Your task to perform on an android device: toggle location history Image 0: 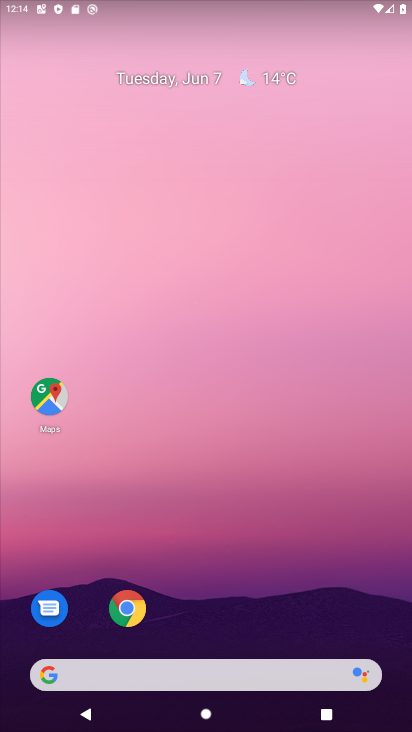
Step 0: drag from (186, 658) to (298, 257)
Your task to perform on an android device: toggle location history Image 1: 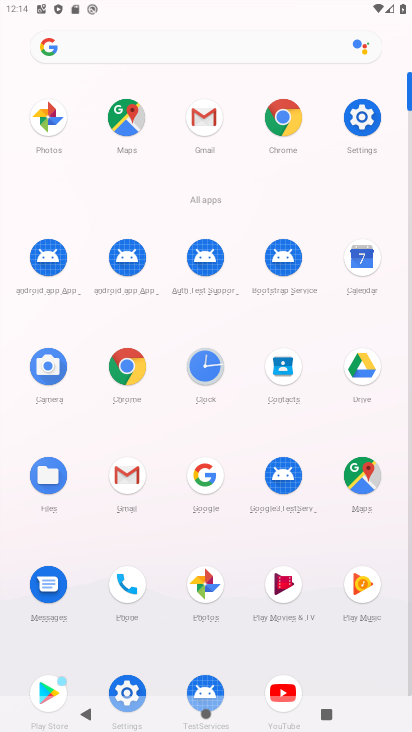
Step 1: click (133, 696)
Your task to perform on an android device: toggle location history Image 2: 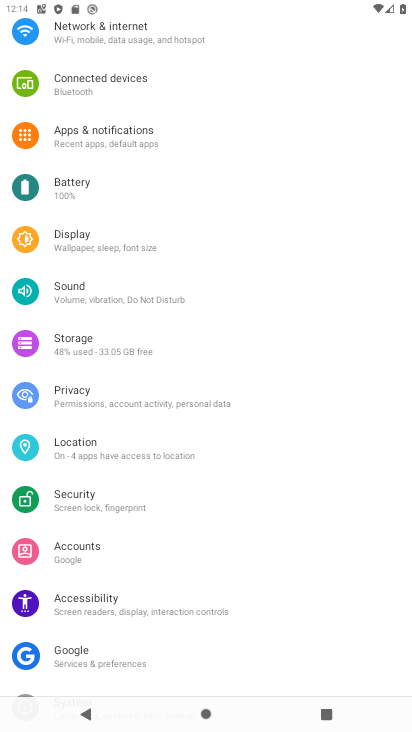
Step 2: click (120, 441)
Your task to perform on an android device: toggle location history Image 3: 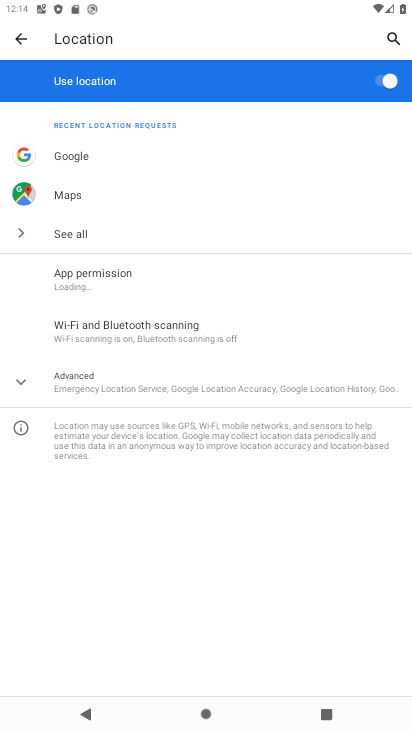
Step 3: click (156, 387)
Your task to perform on an android device: toggle location history Image 4: 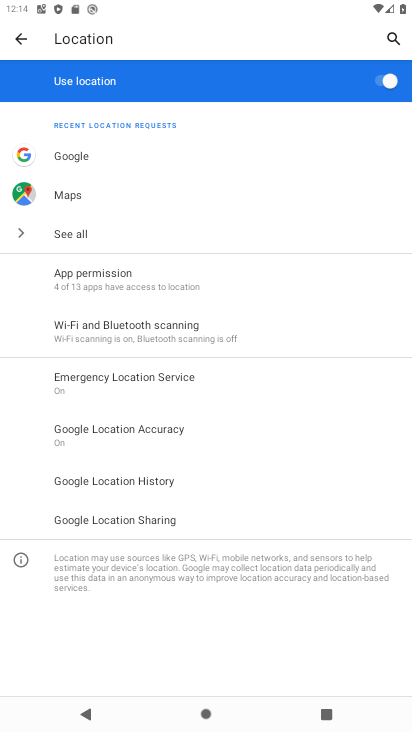
Step 4: click (206, 488)
Your task to perform on an android device: toggle location history Image 5: 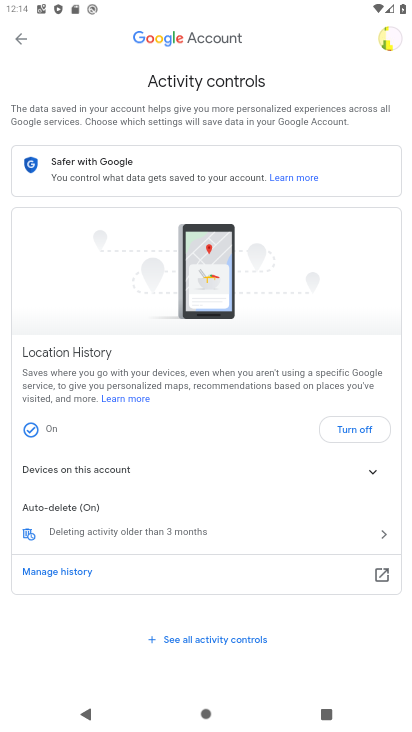
Step 5: click (371, 438)
Your task to perform on an android device: toggle location history Image 6: 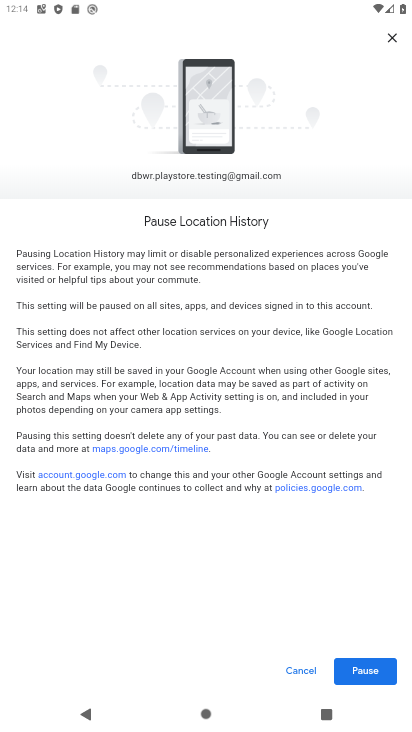
Step 6: click (358, 684)
Your task to perform on an android device: toggle location history Image 7: 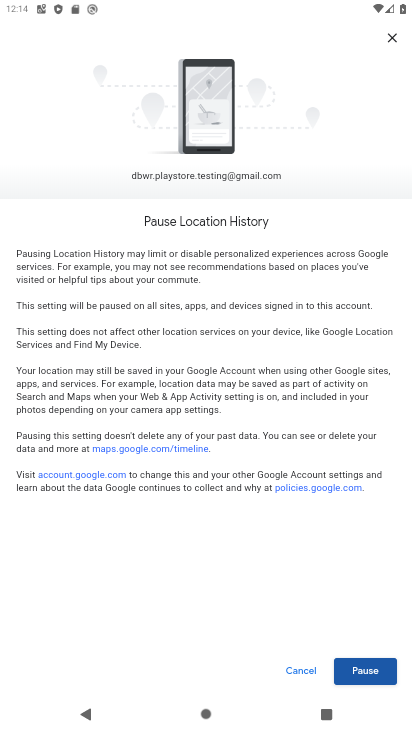
Step 7: click (372, 675)
Your task to perform on an android device: toggle location history Image 8: 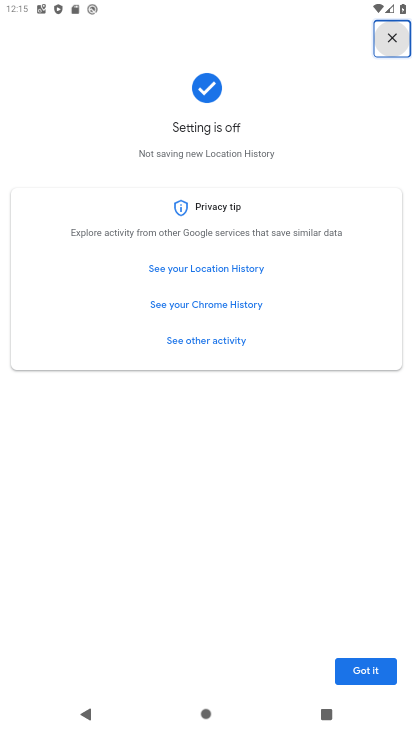
Step 8: click (374, 676)
Your task to perform on an android device: toggle location history Image 9: 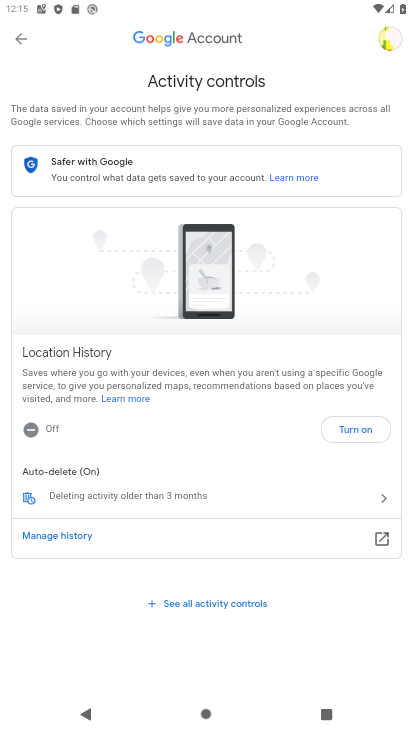
Step 9: click (372, 428)
Your task to perform on an android device: toggle location history Image 10: 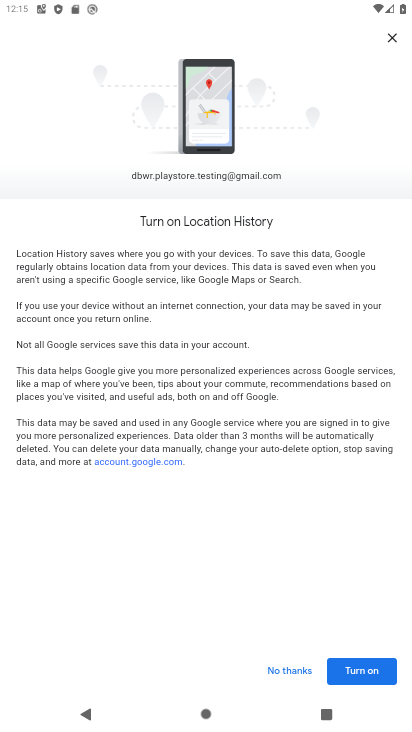
Step 10: click (353, 673)
Your task to perform on an android device: toggle location history Image 11: 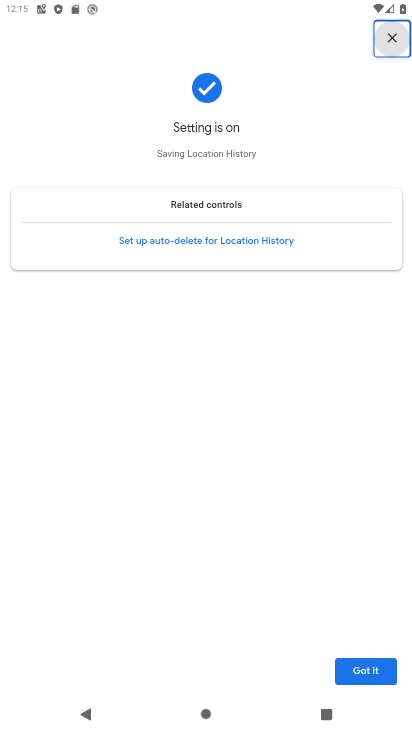
Step 11: click (358, 675)
Your task to perform on an android device: toggle location history Image 12: 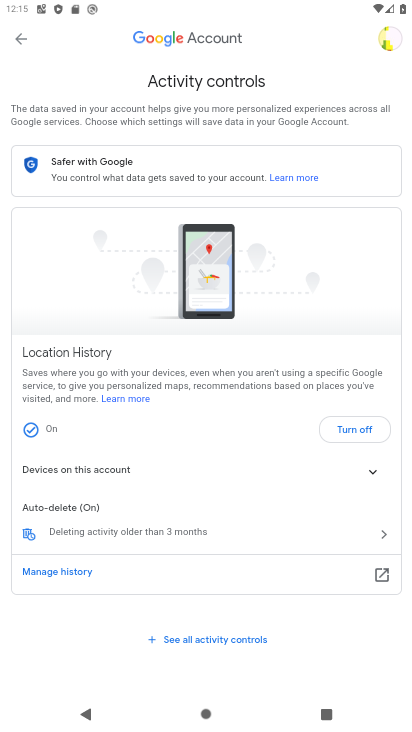
Step 12: task complete